Your task to perform on an android device: Open Android settings Image 0: 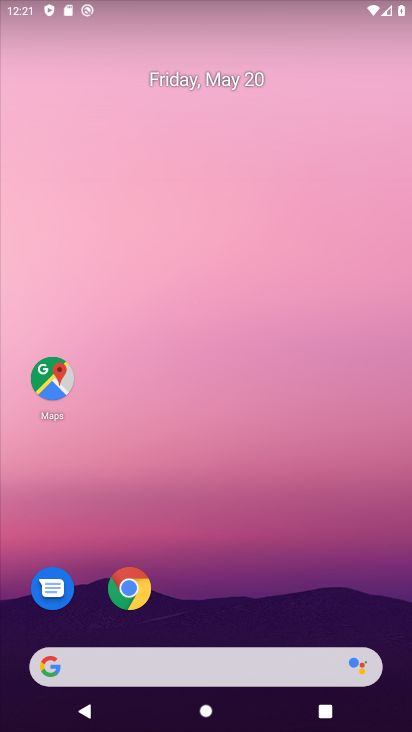
Step 0: drag from (391, 617) to (314, 22)
Your task to perform on an android device: Open Android settings Image 1: 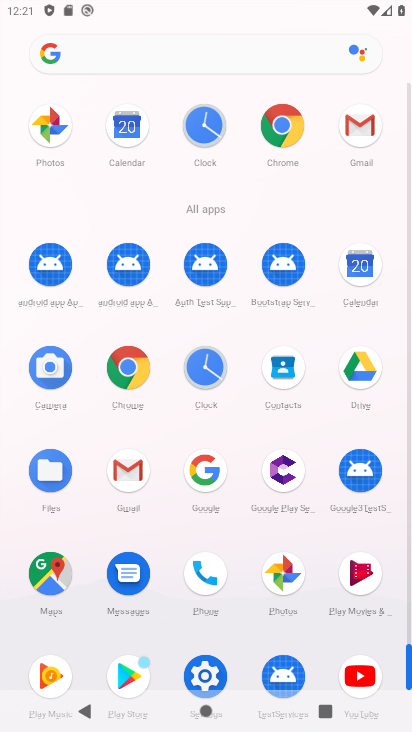
Step 1: click (207, 674)
Your task to perform on an android device: Open Android settings Image 2: 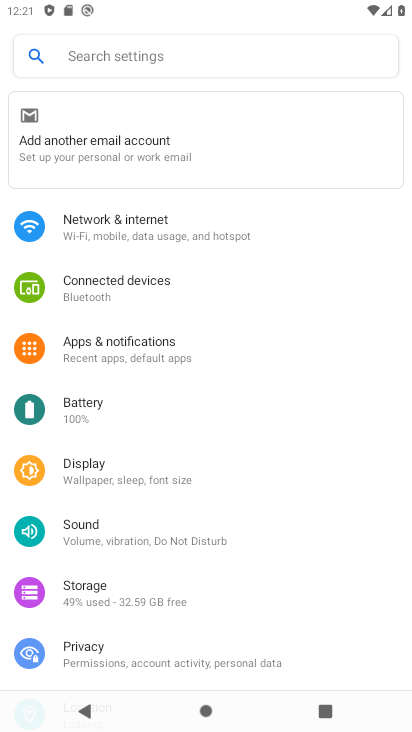
Step 2: drag from (253, 621) to (229, 170)
Your task to perform on an android device: Open Android settings Image 3: 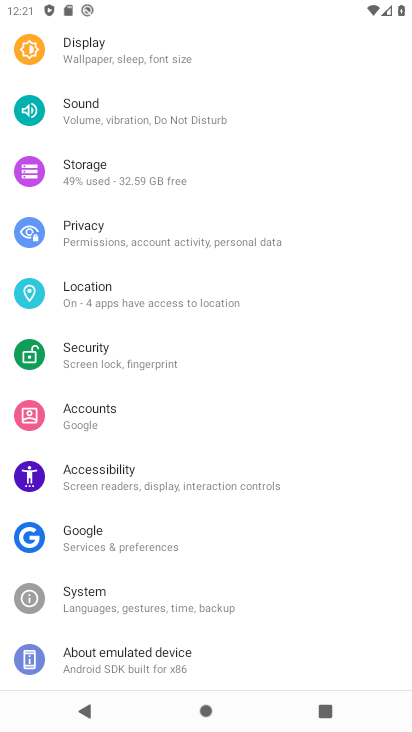
Step 3: drag from (266, 526) to (274, 112)
Your task to perform on an android device: Open Android settings Image 4: 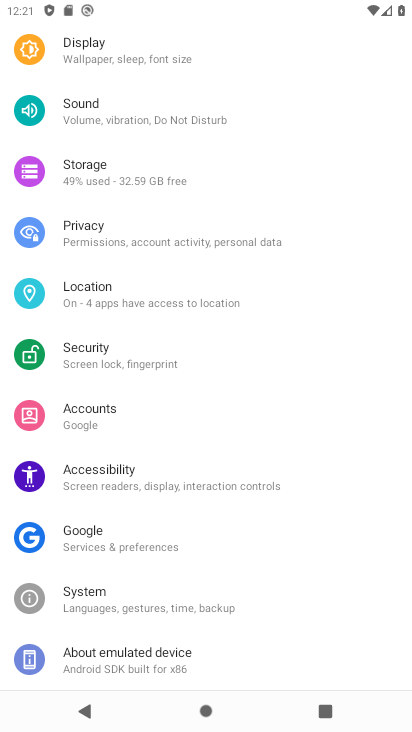
Step 4: click (114, 639)
Your task to perform on an android device: Open Android settings Image 5: 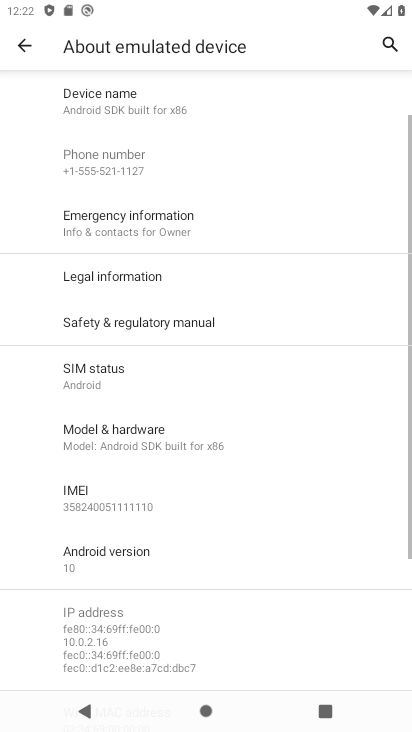
Step 5: task complete